Your task to perform on an android device: What's on my calendar tomorrow? Image 0: 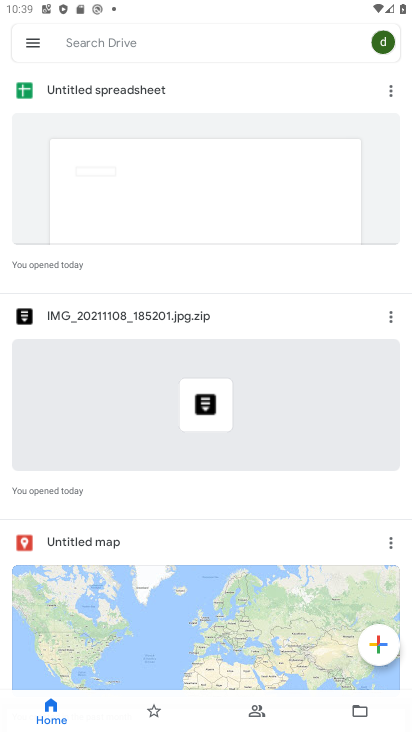
Step 0: press home button
Your task to perform on an android device: What's on my calendar tomorrow? Image 1: 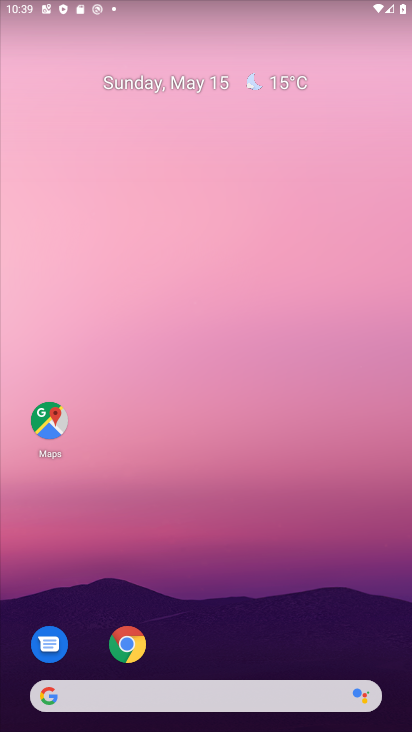
Step 1: drag from (194, 629) to (285, 374)
Your task to perform on an android device: What's on my calendar tomorrow? Image 2: 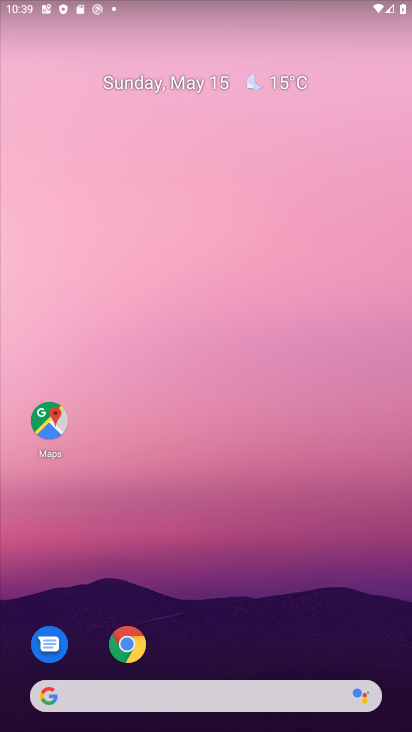
Step 2: drag from (276, 685) to (289, 199)
Your task to perform on an android device: What's on my calendar tomorrow? Image 3: 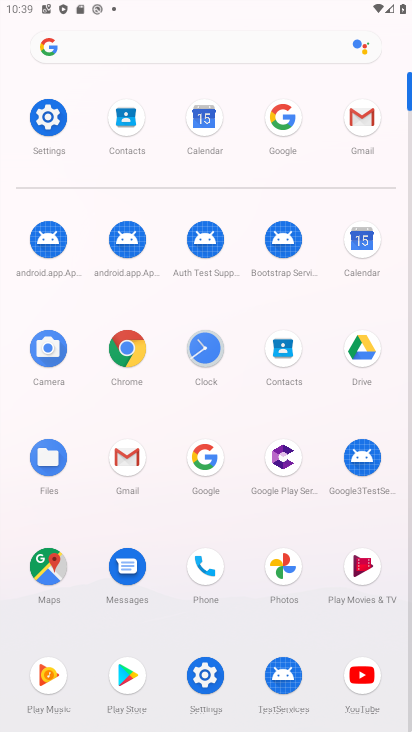
Step 3: click (362, 246)
Your task to perform on an android device: What's on my calendar tomorrow? Image 4: 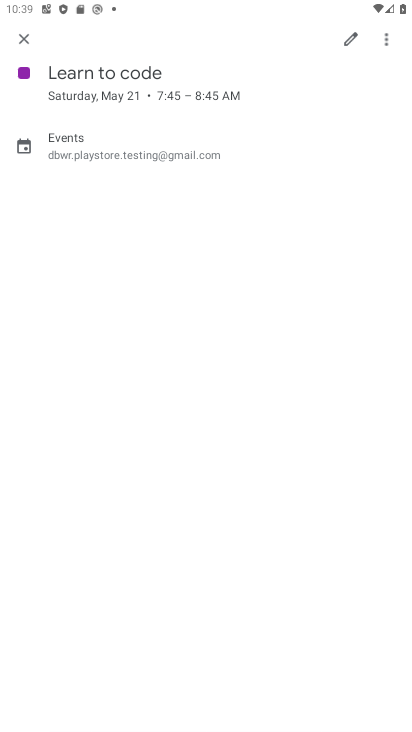
Step 4: click (23, 49)
Your task to perform on an android device: What's on my calendar tomorrow? Image 5: 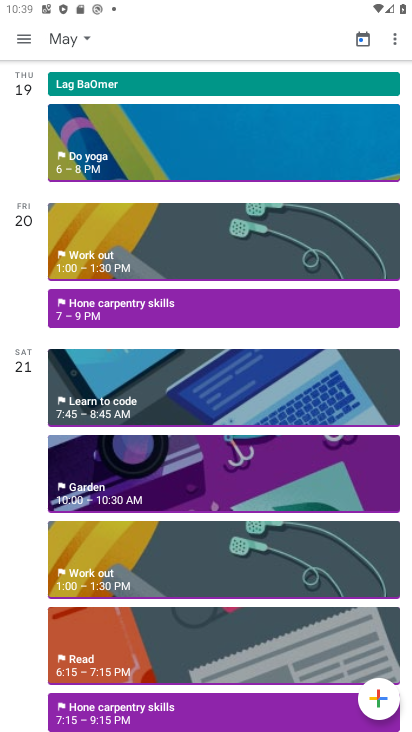
Step 5: drag from (182, 141) to (165, 549)
Your task to perform on an android device: What's on my calendar tomorrow? Image 6: 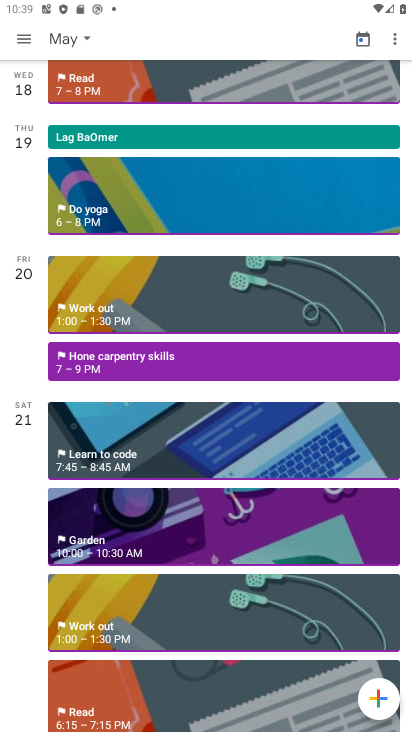
Step 6: click (213, 491)
Your task to perform on an android device: What's on my calendar tomorrow? Image 7: 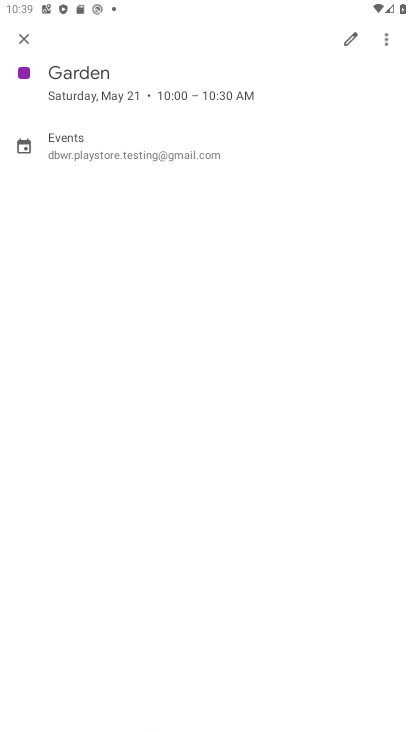
Step 7: click (30, 43)
Your task to perform on an android device: What's on my calendar tomorrow? Image 8: 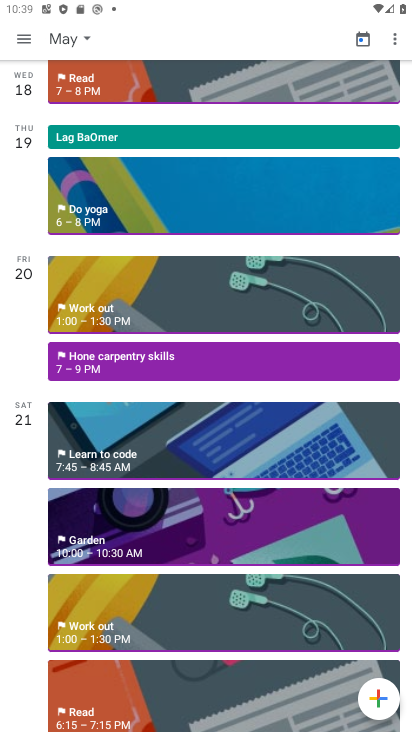
Step 8: click (63, 39)
Your task to perform on an android device: What's on my calendar tomorrow? Image 9: 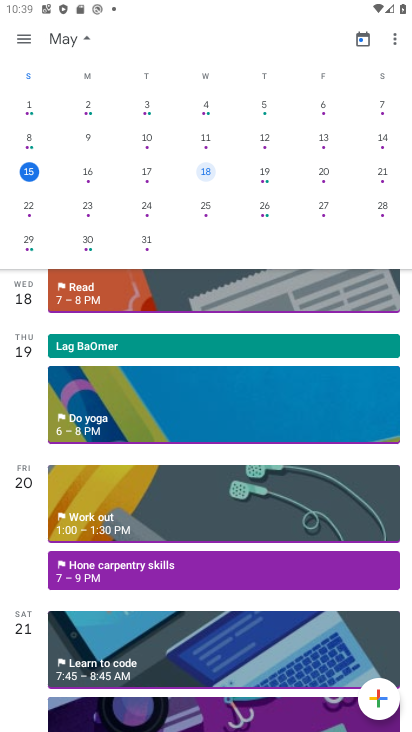
Step 9: click (137, 176)
Your task to perform on an android device: What's on my calendar tomorrow? Image 10: 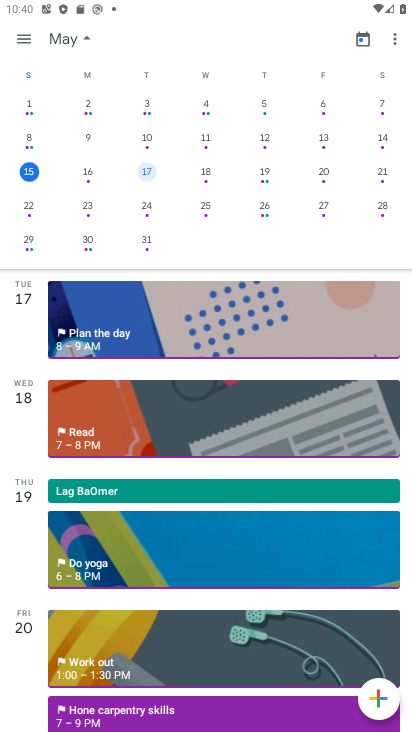
Step 10: click (166, 323)
Your task to perform on an android device: What's on my calendar tomorrow? Image 11: 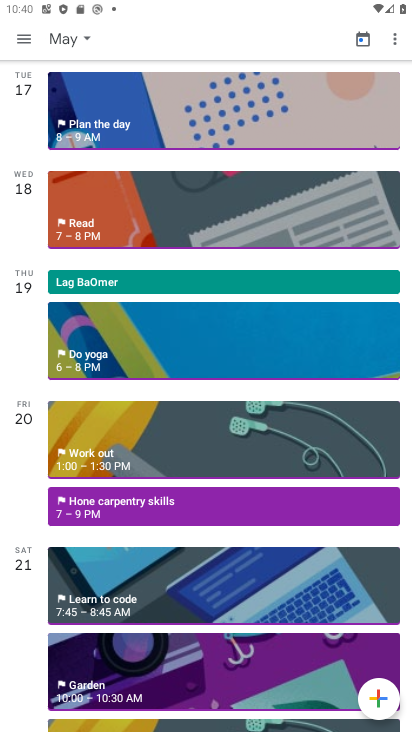
Step 11: click (124, 102)
Your task to perform on an android device: What's on my calendar tomorrow? Image 12: 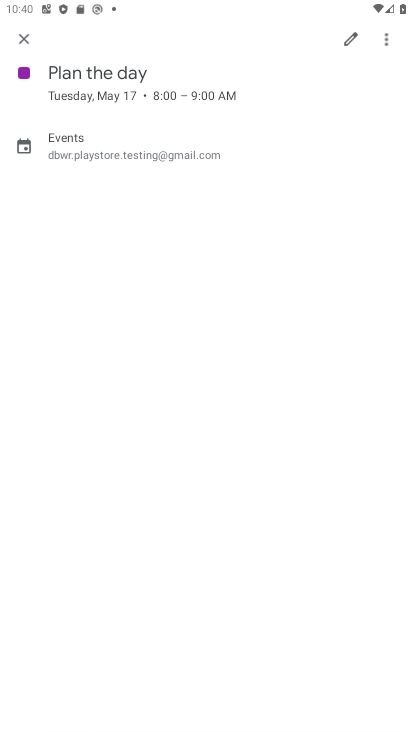
Step 12: task complete